Your task to perform on an android device: Open calendar and show me the first week of next month Image 0: 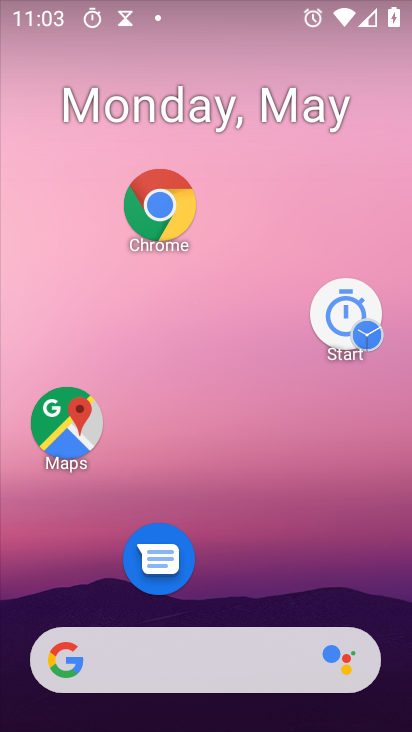
Step 0: drag from (233, 600) to (164, 155)
Your task to perform on an android device: Open calendar and show me the first week of next month Image 1: 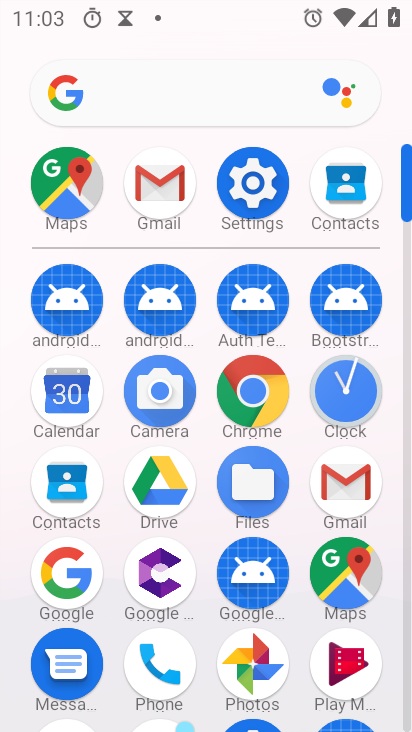
Step 1: drag from (214, 414) to (167, 149)
Your task to perform on an android device: Open calendar and show me the first week of next month Image 2: 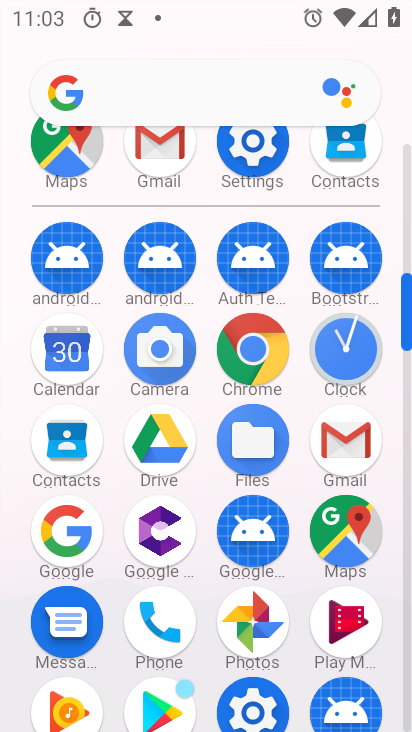
Step 2: click (74, 371)
Your task to perform on an android device: Open calendar and show me the first week of next month Image 3: 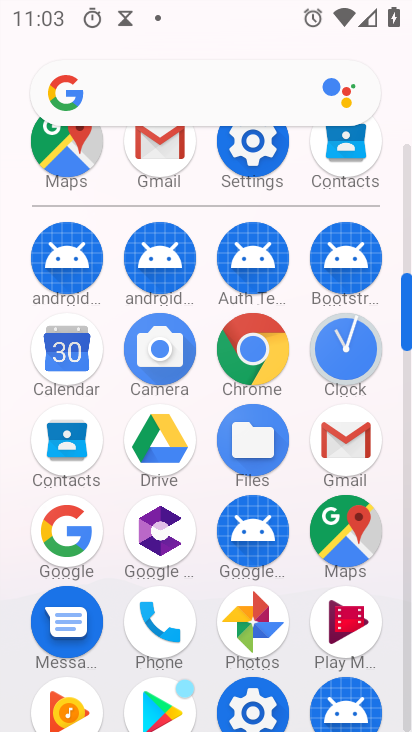
Step 3: click (69, 366)
Your task to perform on an android device: Open calendar and show me the first week of next month Image 4: 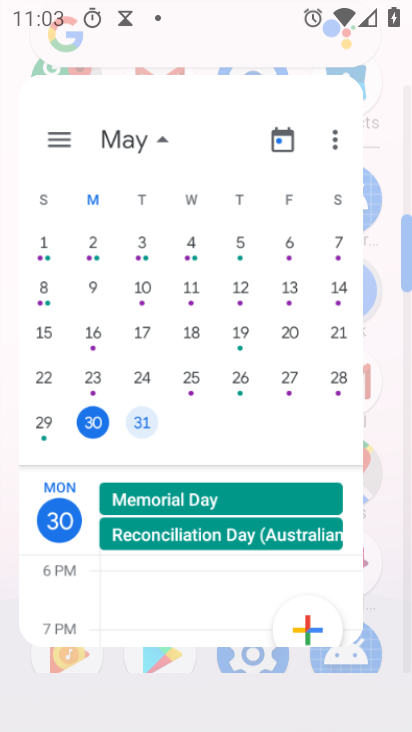
Step 4: click (67, 364)
Your task to perform on an android device: Open calendar and show me the first week of next month Image 5: 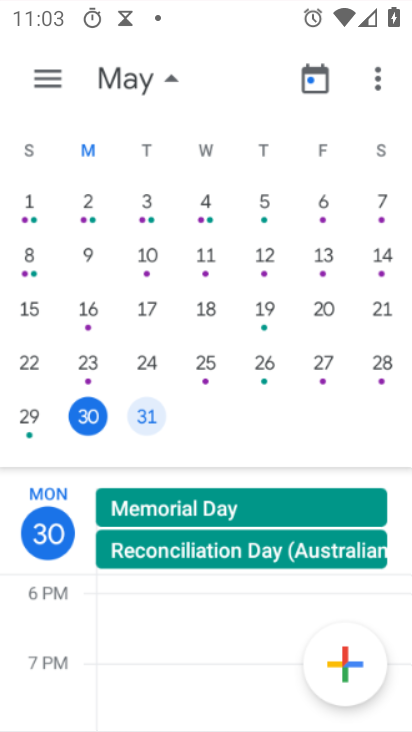
Step 5: click (63, 364)
Your task to perform on an android device: Open calendar and show me the first week of next month Image 6: 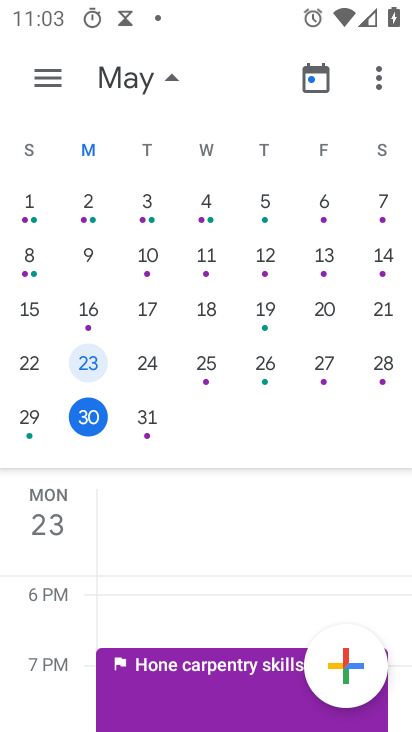
Step 6: click (68, 353)
Your task to perform on an android device: Open calendar and show me the first week of next month Image 7: 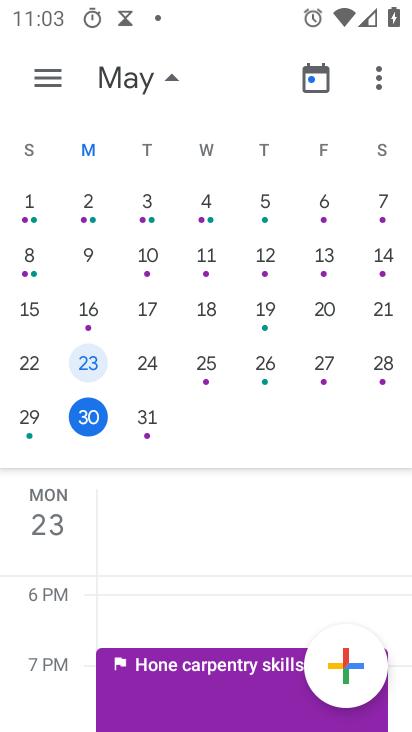
Step 7: drag from (329, 246) to (102, 446)
Your task to perform on an android device: Open calendar and show me the first week of next month Image 8: 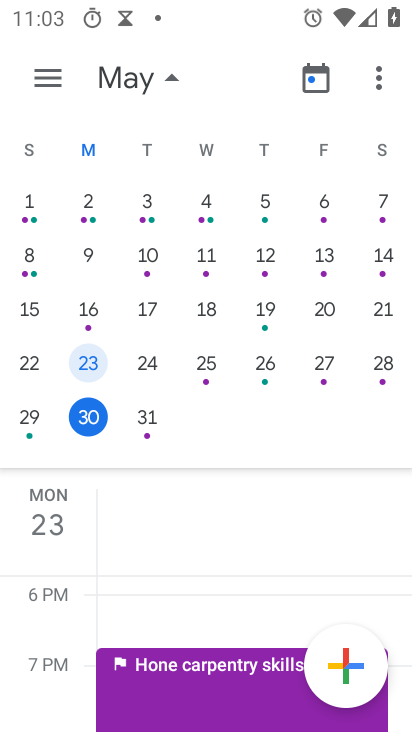
Step 8: drag from (307, 312) to (66, 371)
Your task to perform on an android device: Open calendar and show me the first week of next month Image 9: 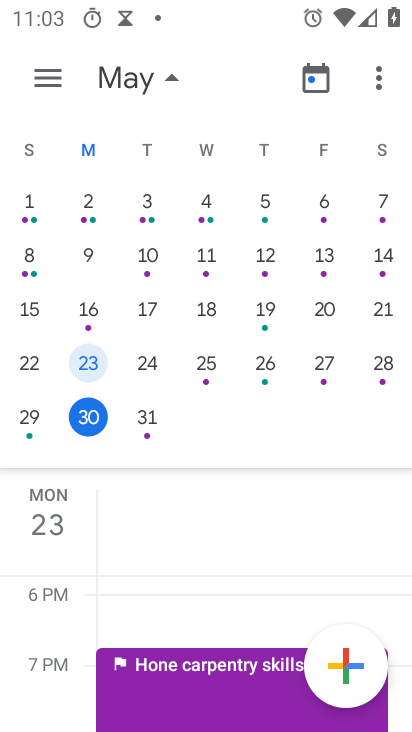
Step 9: drag from (258, 336) to (26, 317)
Your task to perform on an android device: Open calendar and show me the first week of next month Image 10: 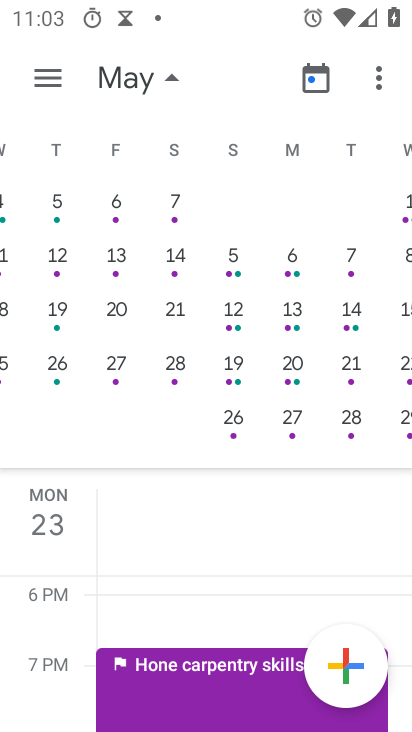
Step 10: drag from (129, 260) to (87, 302)
Your task to perform on an android device: Open calendar and show me the first week of next month Image 11: 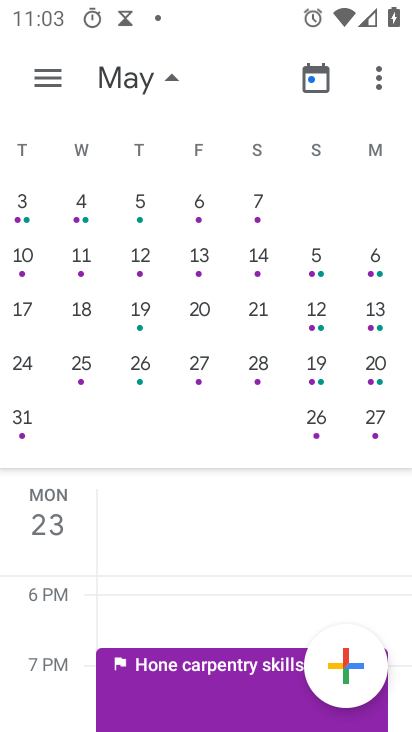
Step 11: drag from (232, 281) to (0, 317)
Your task to perform on an android device: Open calendar and show me the first week of next month Image 12: 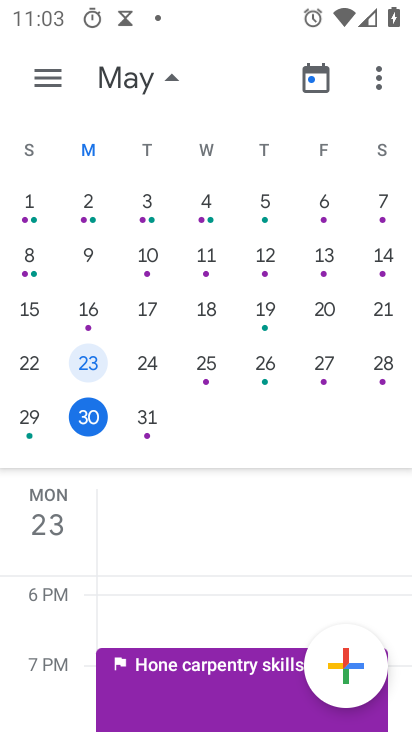
Step 12: drag from (241, 196) to (2, 373)
Your task to perform on an android device: Open calendar and show me the first week of next month Image 13: 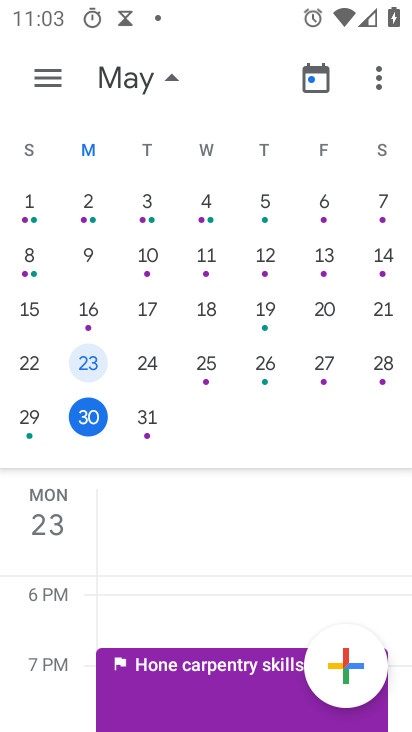
Step 13: drag from (248, 289) to (55, 374)
Your task to perform on an android device: Open calendar and show me the first week of next month Image 14: 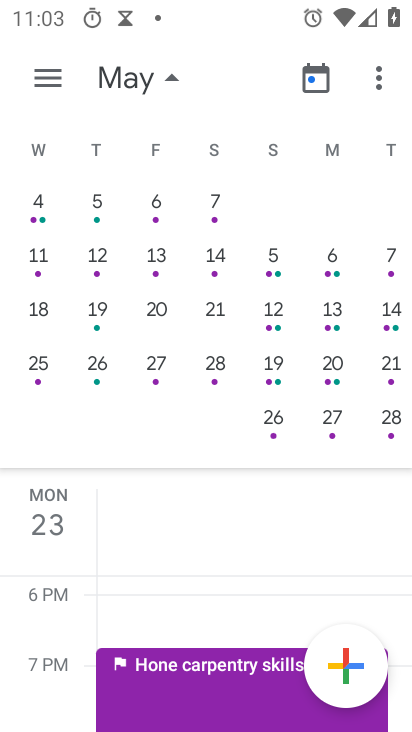
Step 14: drag from (194, 333) to (5, 421)
Your task to perform on an android device: Open calendar and show me the first week of next month Image 15: 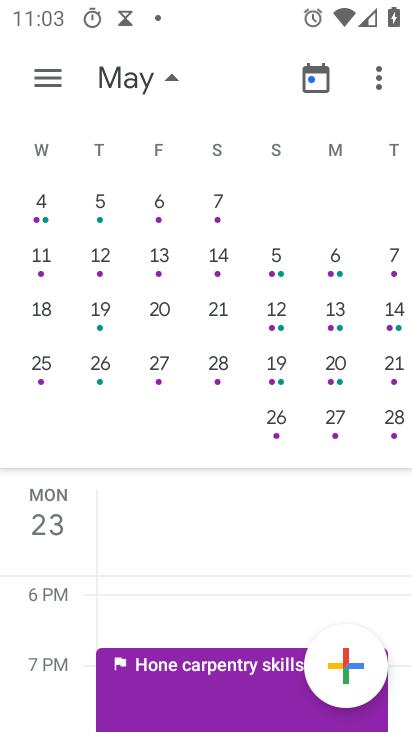
Step 15: drag from (267, 310) to (10, 358)
Your task to perform on an android device: Open calendar and show me the first week of next month Image 16: 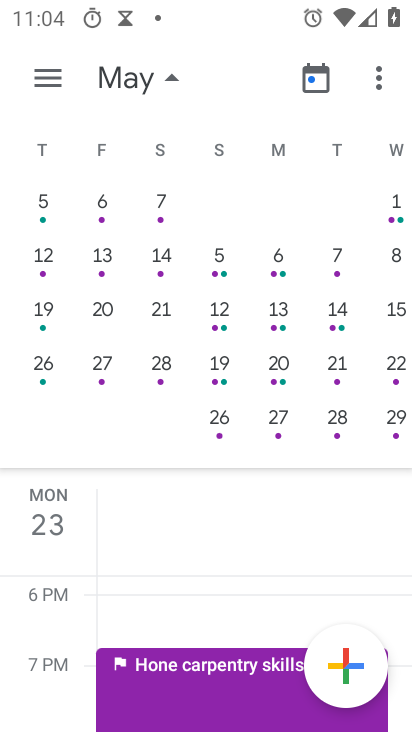
Step 16: drag from (186, 310) to (30, 349)
Your task to perform on an android device: Open calendar and show me the first week of next month Image 17: 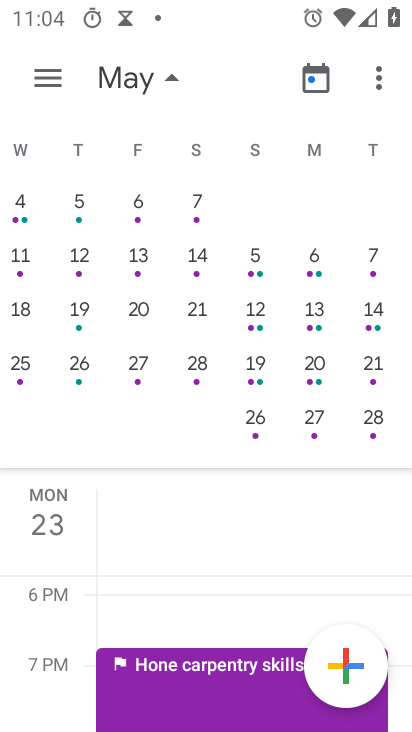
Step 17: drag from (215, 280) to (32, 425)
Your task to perform on an android device: Open calendar and show me the first week of next month Image 18: 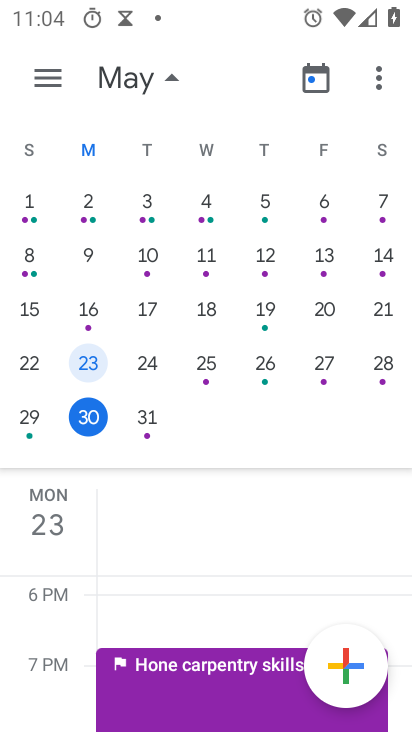
Step 18: drag from (197, 321) to (22, 458)
Your task to perform on an android device: Open calendar and show me the first week of next month Image 19: 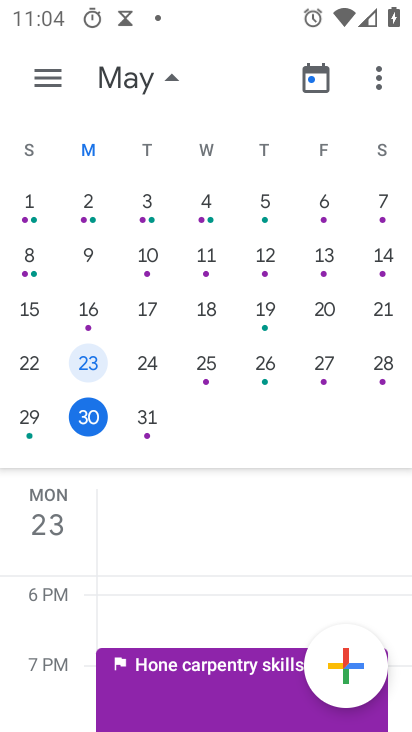
Step 19: drag from (312, 274) to (33, 372)
Your task to perform on an android device: Open calendar and show me the first week of next month Image 20: 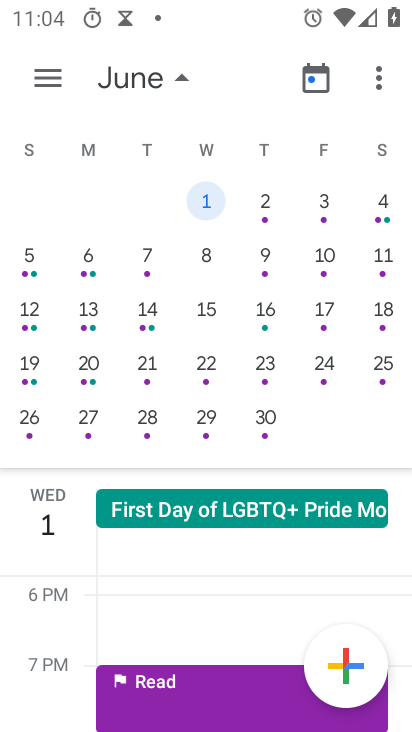
Step 20: click (206, 253)
Your task to perform on an android device: Open calendar and show me the first week of next month Image 21: 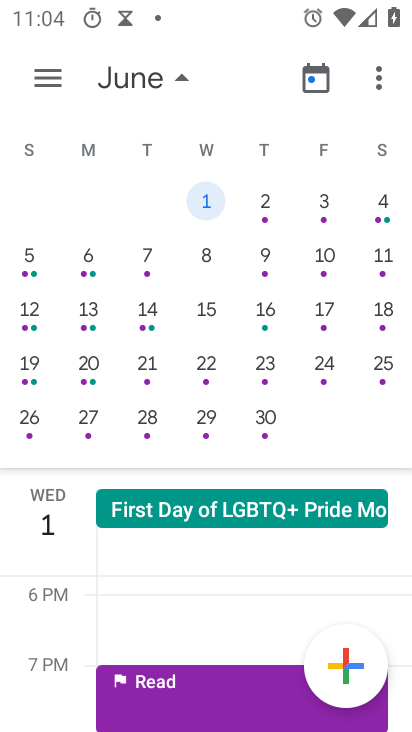
Step 21: click (209, 253)
Your task to perform on an android device: Open calendar and show me the first week of next month Image 22: 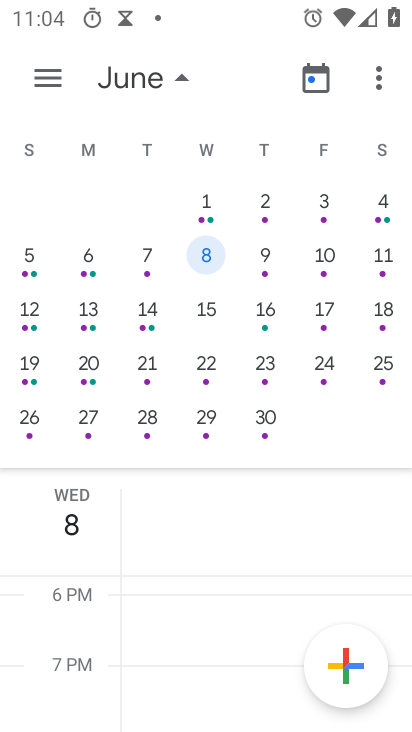
Step 22: click (209, 253)
Your task to perform on an android device: Open calendar and show me the first week of next month Image 23: 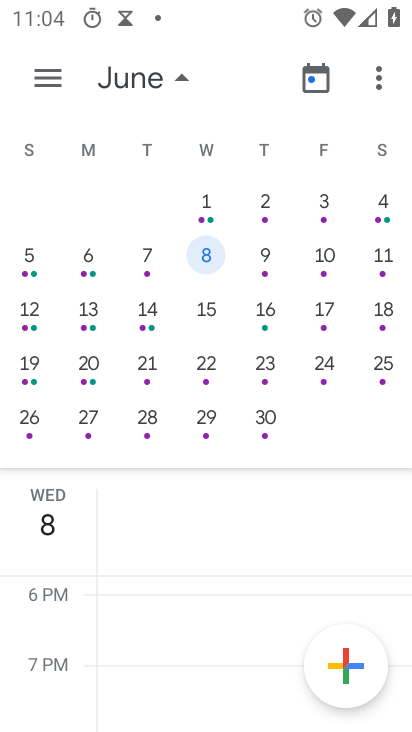
Step 23: click (207, 252)
Your task to perform on an android device: Open calendar and show me the first week of next month Image 24: 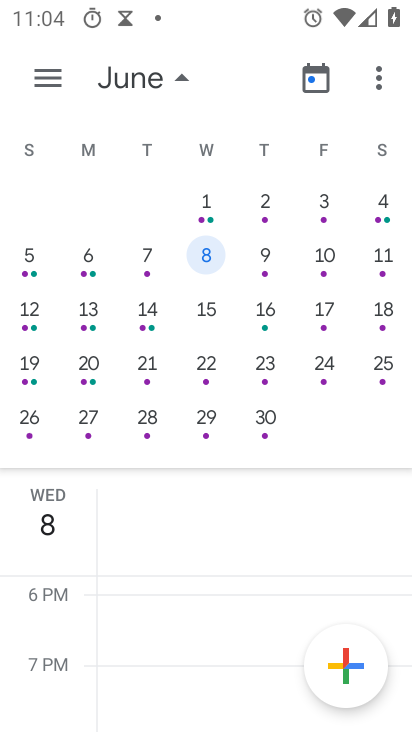
Step 24: click (208, 251)
Your task to perform on an android device: Open calendar and show me the first week of next month Image 25: 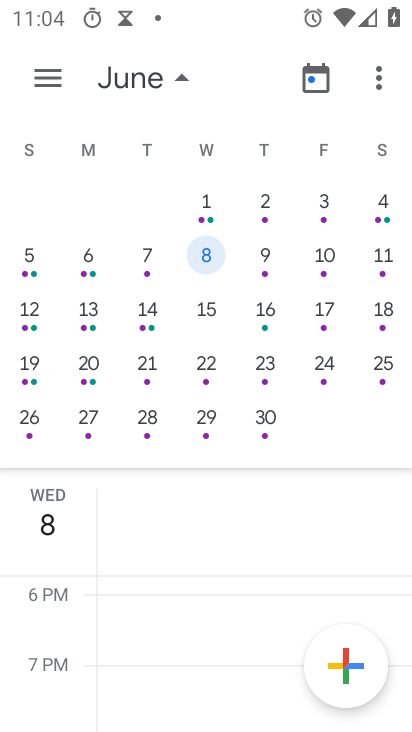
Step 25: click (204, 210)
Your task to perform on an android device: Open calendar and show me the first week of next month Image 26: 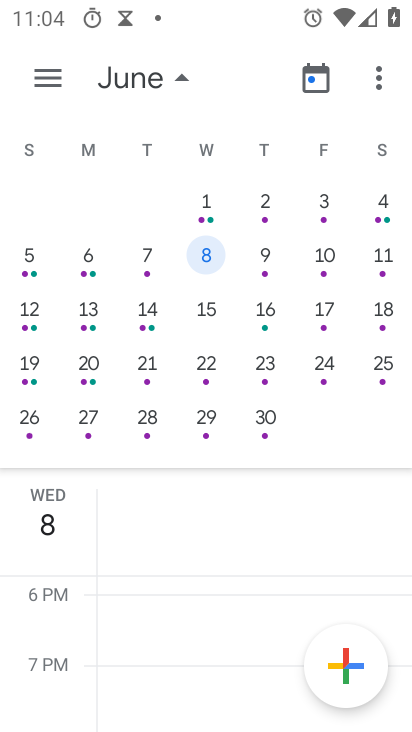
Step 26: click (204, 211)
Your task to perform on an android device: Open calendar and show me the first week of next month Image 27: 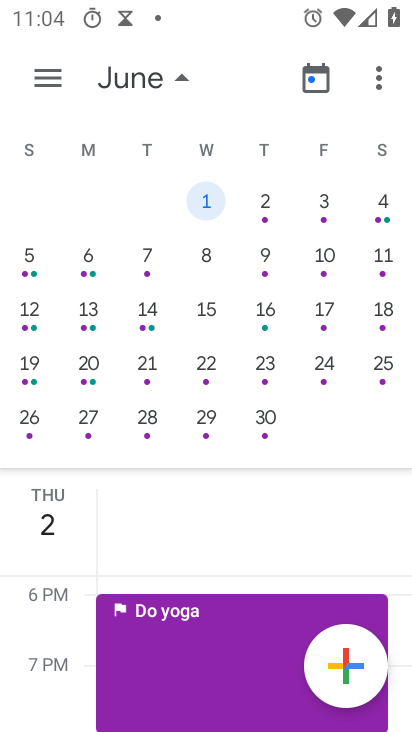
Step 27: click (201, 212)
Your task to perform on an android device: Open calendar and show me the first week of next month Image 28: 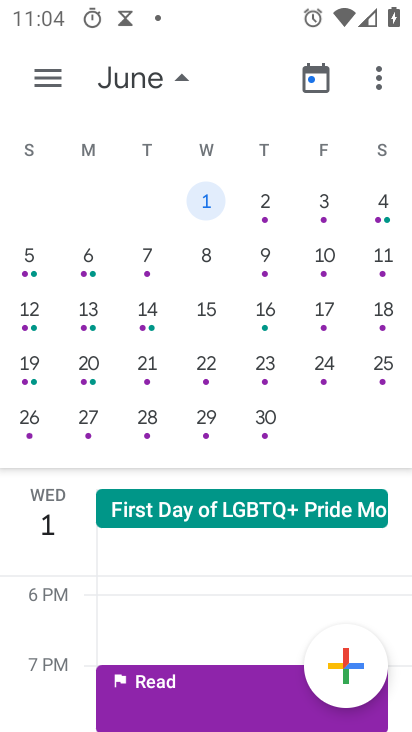
Step 28: task complete